Your task to perform on an android device: remove spam from my inbox in the gmail app Image 0: 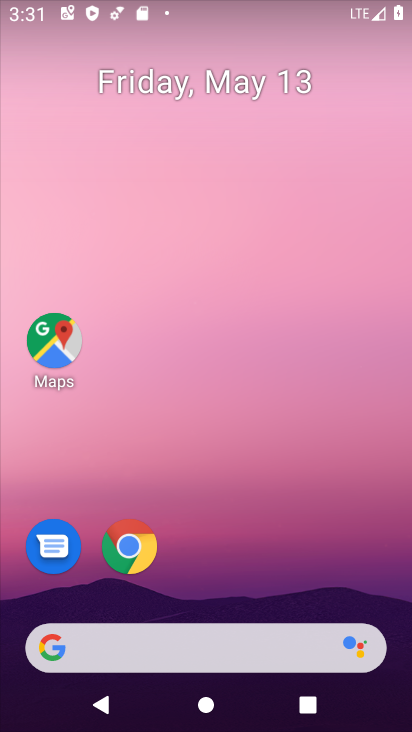
Step 0: drag from (160, 610) to (393, 114)
Your task to perform on an android device: remove spam from my inbox in the gmail app Image 1: 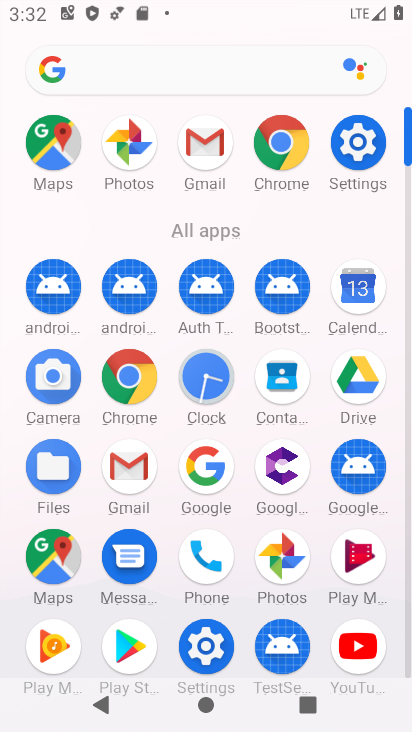
Step 1: click (213, 141)
Your task to perform on an android device: remove spam from my inbox in the gmail app Image 2: 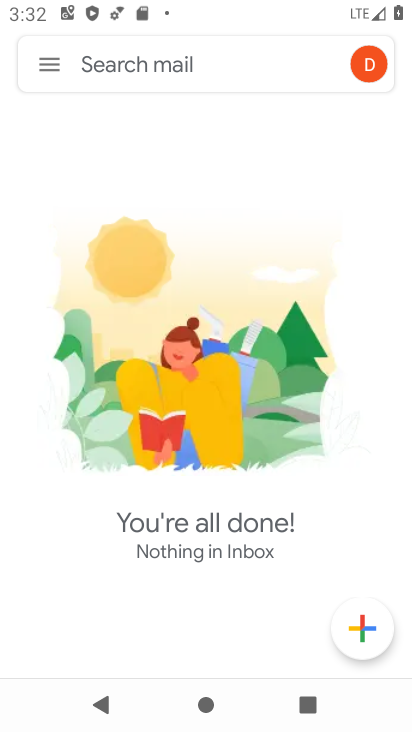
Step 2: click (34, 70)
Your task to perform on an android device: remove spam from my inbox in the gmail app Image 3: 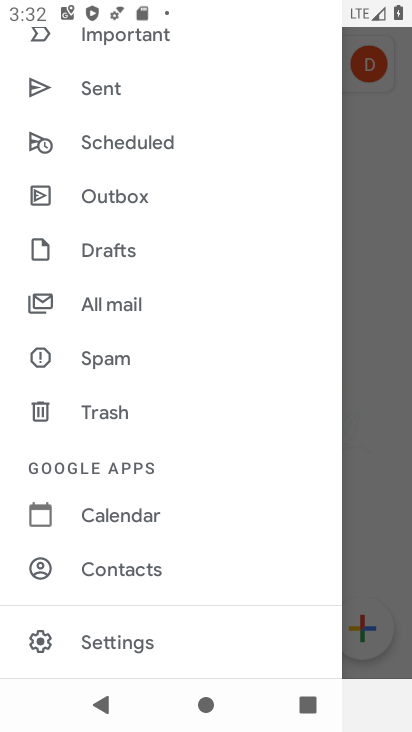
Step 3: click (82, 375)
Your task to perform on an android device: remove spam from my inbox in the gmail app Image 4: 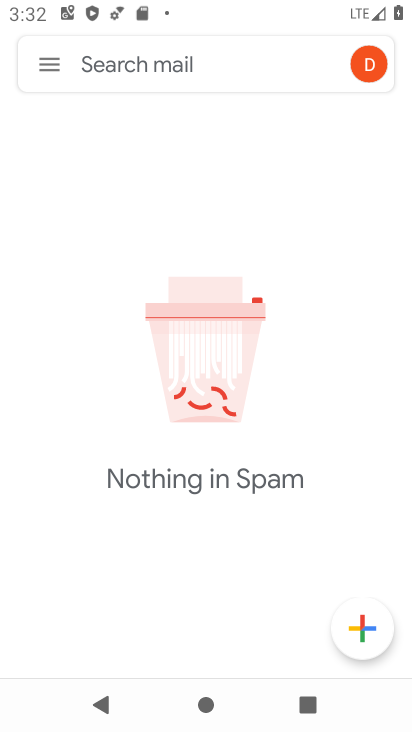
Step 4: task complete